Your task to perform on an android device: Open privacy settings Image 0: 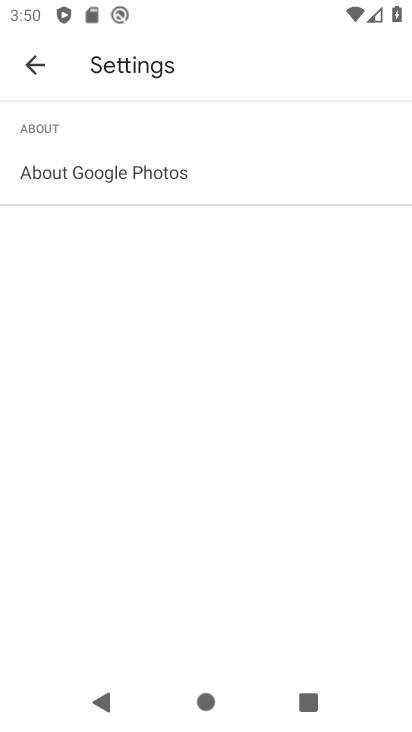
Step 0: click (354, 474)
Your task to perform on an android device: Open privacy settings Image 1: 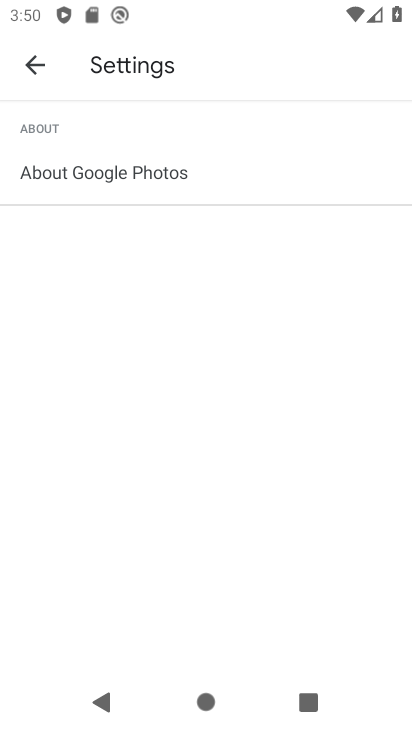
Step 1: press home button
Your task to perform on an android device: Open privacy settings Image 2: 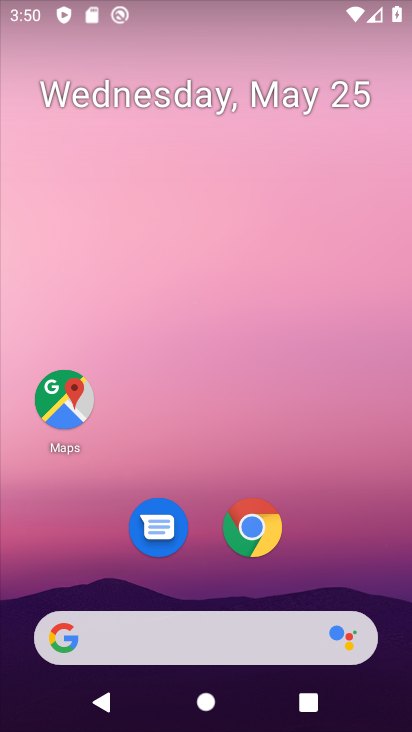
Step 2: click (249, 538)
Your task to perform on an android device: Open privacy settings Image 3: 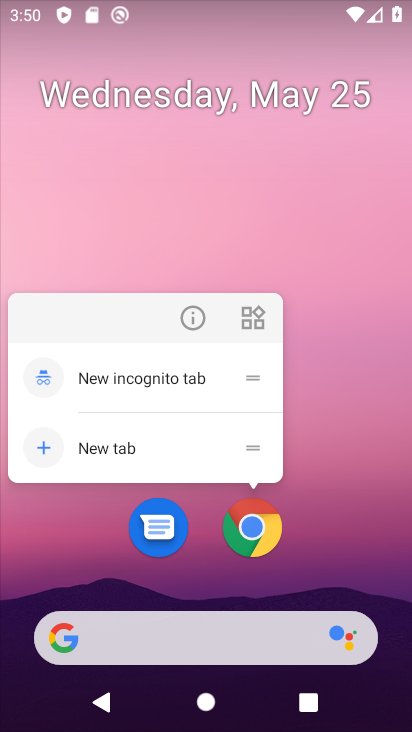
Step 3: click (251, 535)
Your task to perform on an android device: Open privacy settings Image 4: 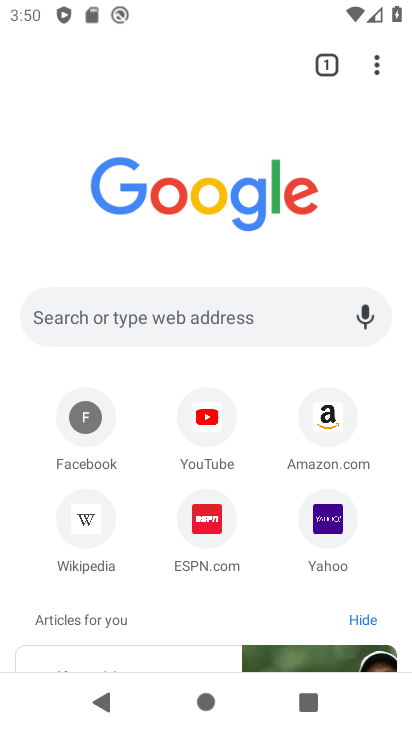
Step 4: drag from (390, 61) to (274, 552)
Your task to perform on an android device: Open privacy settings Image 5: 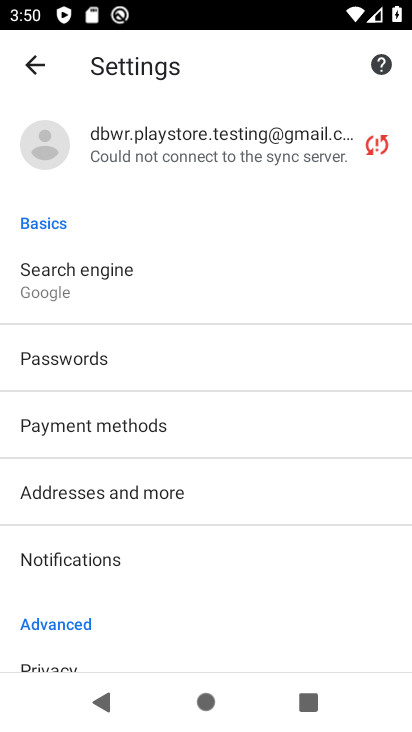
Step 5: drag from (204, 660) to (259, 400)
Your task to perform on an android device: Open privacy settings Image 6: 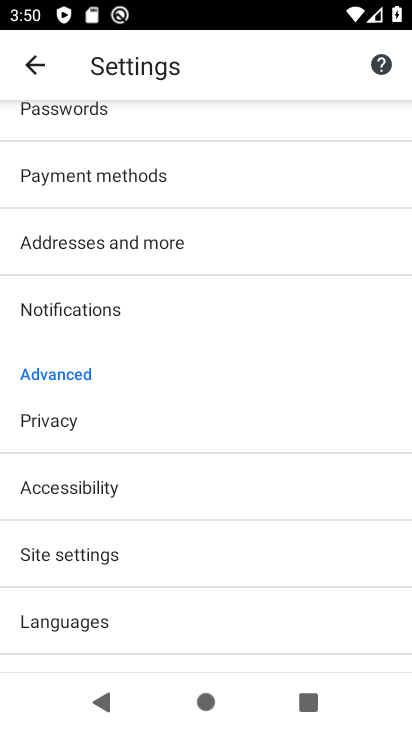
Step 6: click (115, 427)
Your task to perform on an android device: Open privacy settings Image 7: 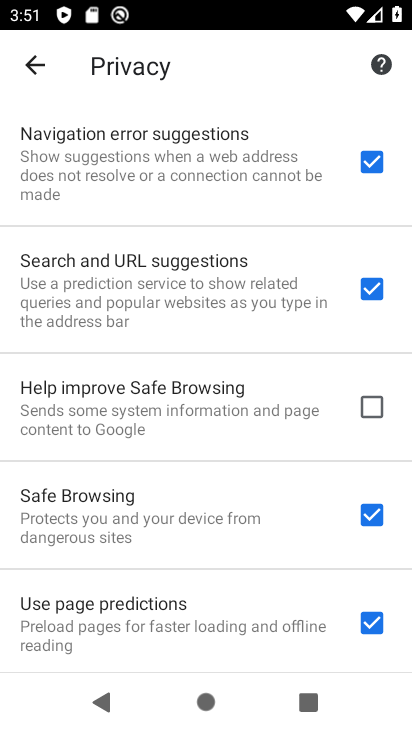
Step 7: task complete